Your task to perform on an android device: turn on notifications settings in the gmail app Image 0: 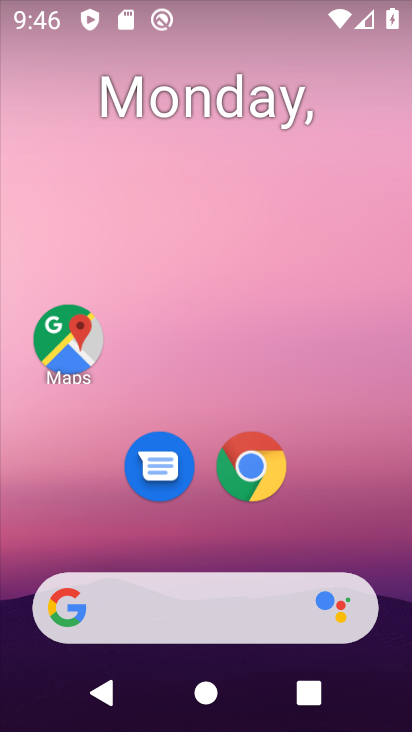
Step 0: drag from (357, 497) to (271, 14)
Your task to perform on an android device: turn on notifications settings in the gmail app Image 1: 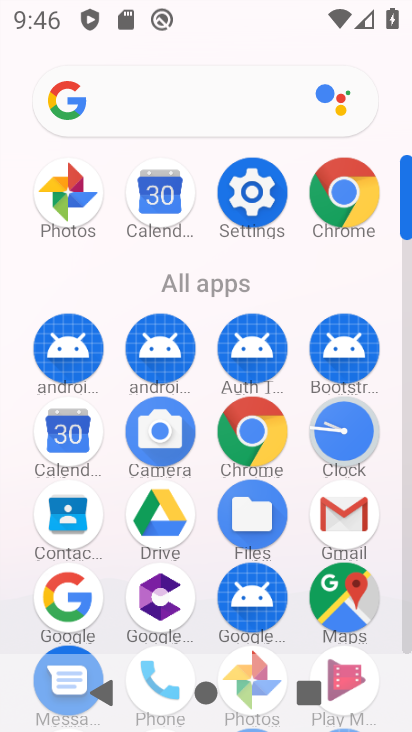
Step 1: click (332, 517)
Your task to perform on an android device: turn on notifications settings in the gmail app Image 2: 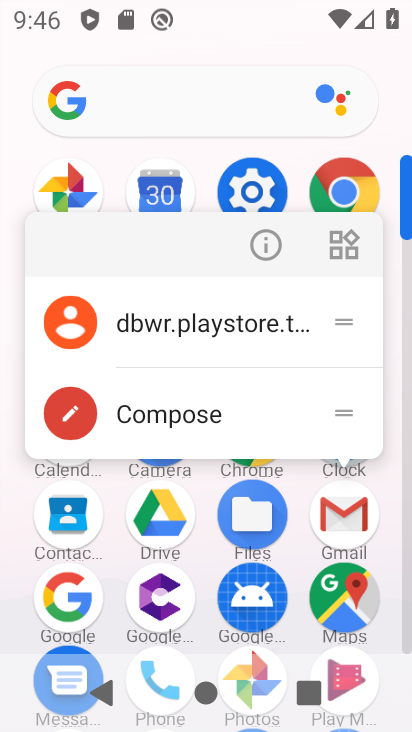
Step 2: click (271, 232)
Your task to perform on an android device: turn on notifications settings in the gmail app Image 3: 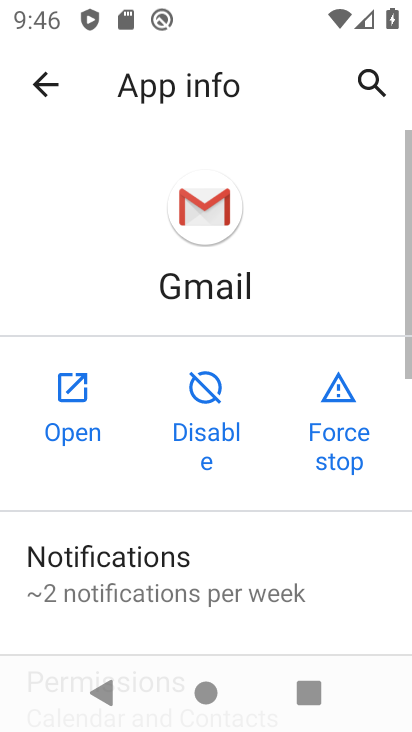
Step 3: click (308, 581)
Your task to perform on an android device: turn on notifications settings in the gmail app Image 4: 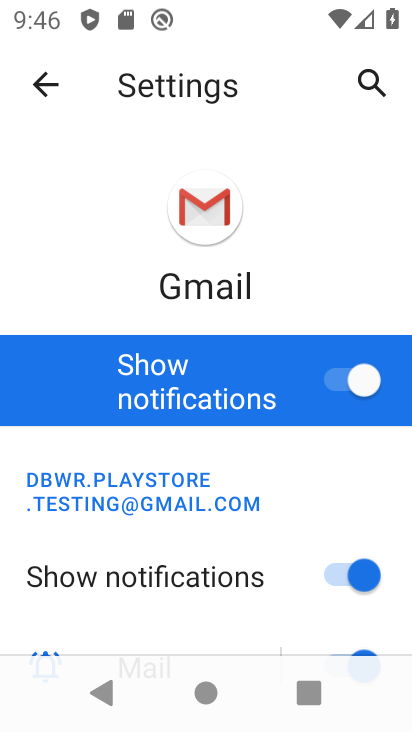
Step 4: task complete